Your task to perform on an android device: Go to Amazon Image 0: 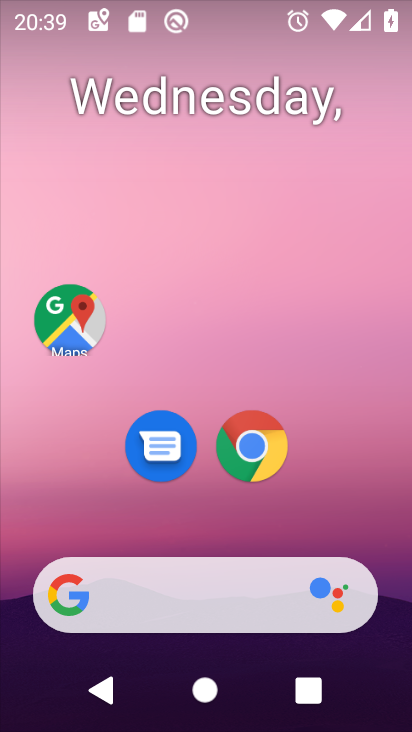
Step 0: click (265, 443)
Your task to perform on an android device: Go to Amazon Image 1: 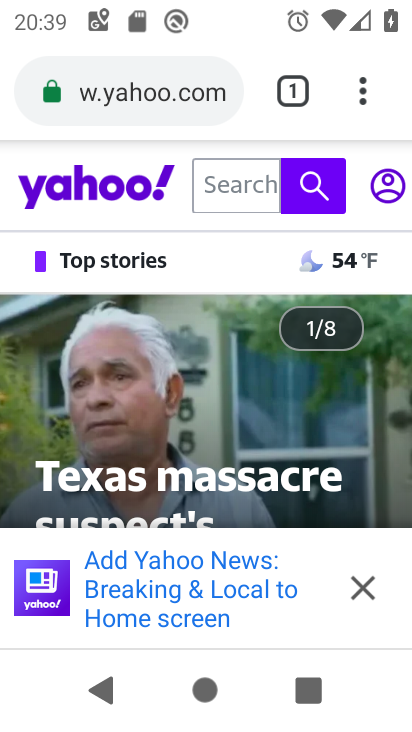
Step 1: click (123, 82)
Your task to perform on an android device: Go to Amazon Image 2: 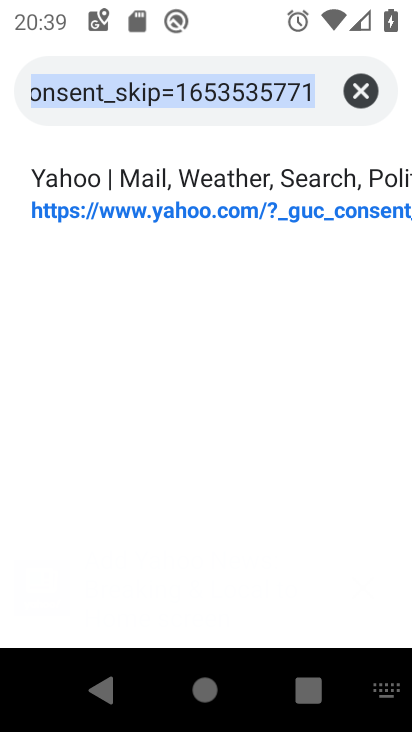
Step 2: type "amazon"
Your task to perform on an android device: Go to Amazon Image 3: 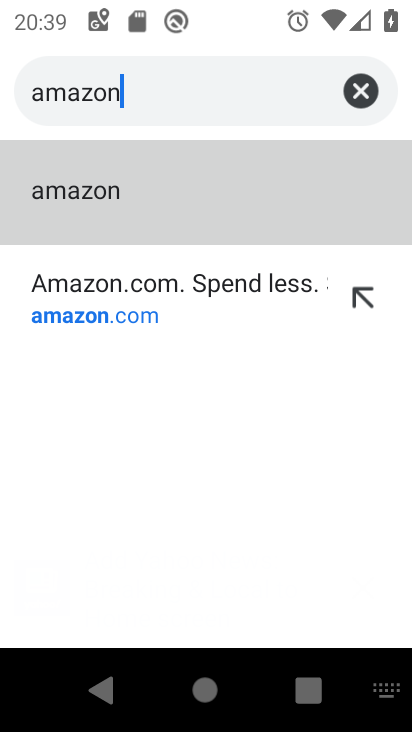
Step 3: click (147, 306)
Your task to perform on an android device: Go to Amazon Image 4: 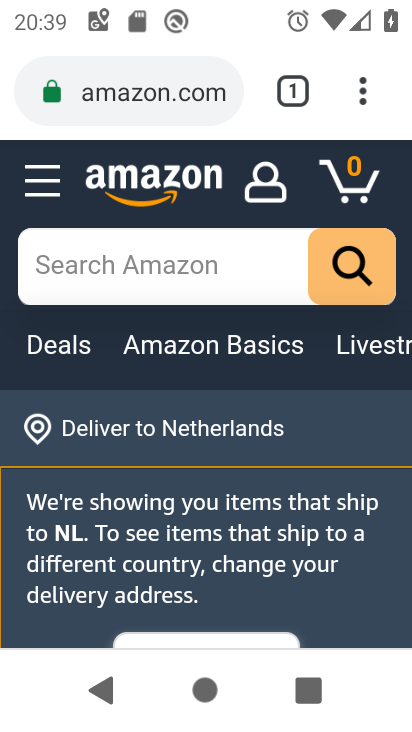
Step 4: task complete